Your task to perform on an android device: What's US dollar exchange rateagainst the Mexican Peso? Image 0: 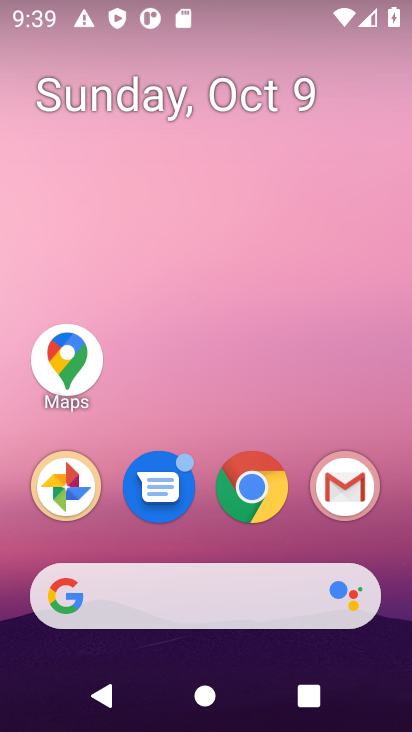
Step 0: drag from (227, 555) to (230, 97)
Your task to perform on an android device: What's US dollar exchange rateagainst the Mexican Peso? Image 1: 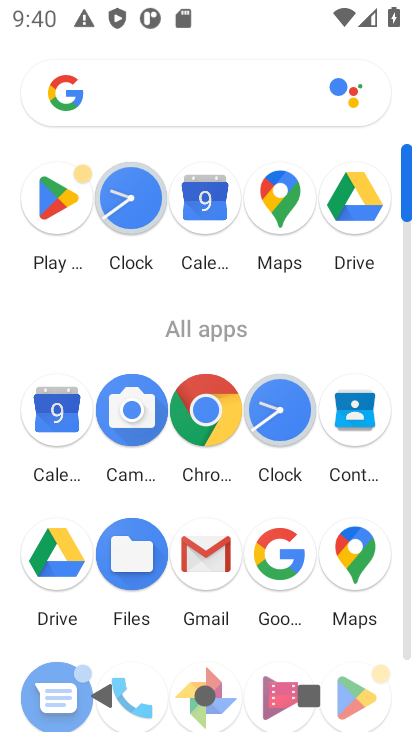
Step 1: click (282, 544)
Your task to perform on an android device: What's US dollar exchange rateagainst the Mexican Peso? Image 2: 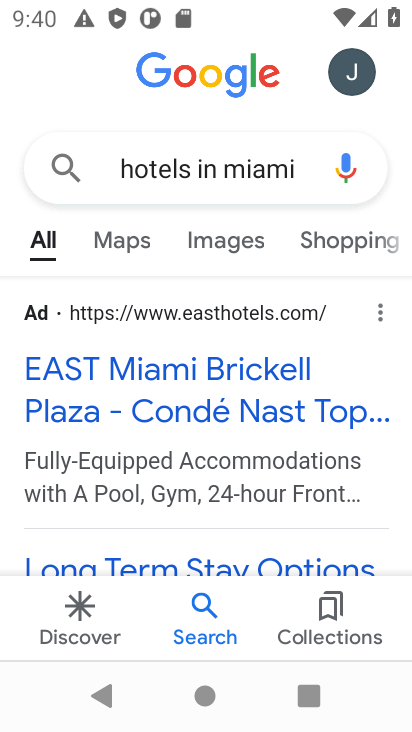
Step 2: click (257, 185)
Your task to perform on an android device: What's US dollar exchange rateagainst the Mexican Peso? Image 3: 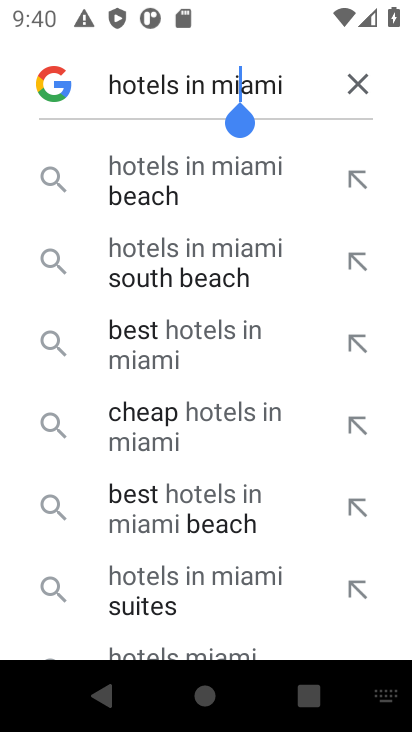
Step 3: click (352, 82)
Your task to perform on an android device: What's US dollar exchange rateagainst the Mexican Peso? Image 4: 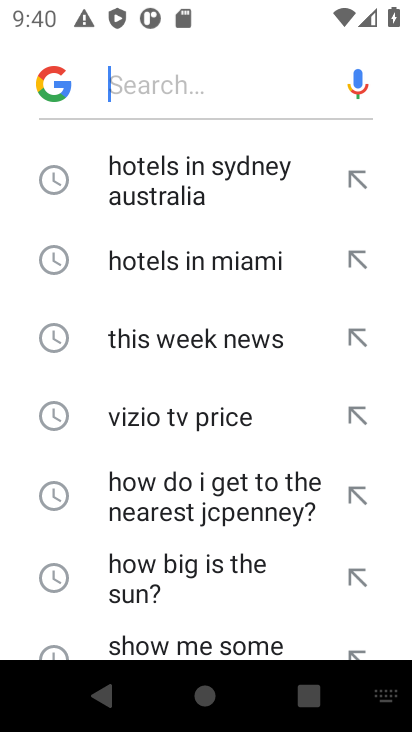
Step 4: type "What's US dollar exchange rateagainst the Mexican Peso?"
Your task to perform on an android device: What's US dollar exchange rateagainst the Mexican Peso? Image 5: 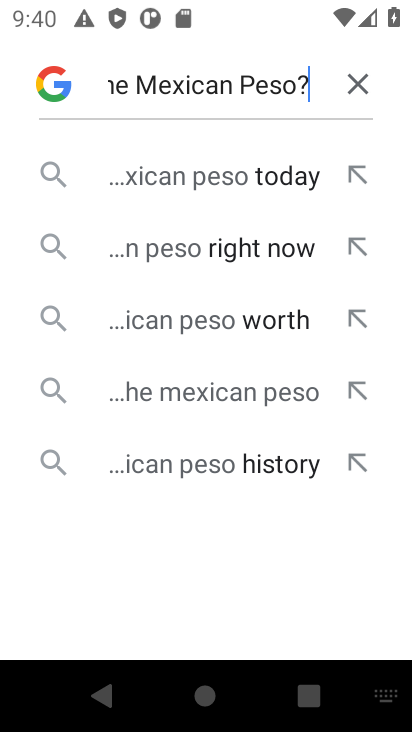
Step 5: click (242, 378)
Your task to perform on an android device: What's US dollar exchange rateagainst the Mexican Peso? Image 6: 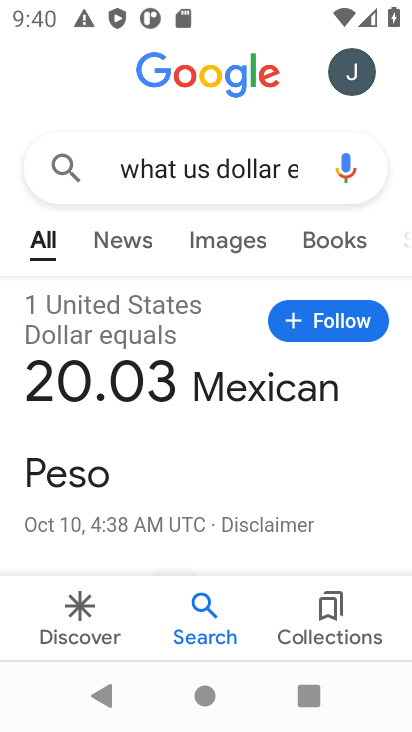
Step 6: task complete